Your task to perform on an android device: open chrome and create a bookmark for the current page Image 0: 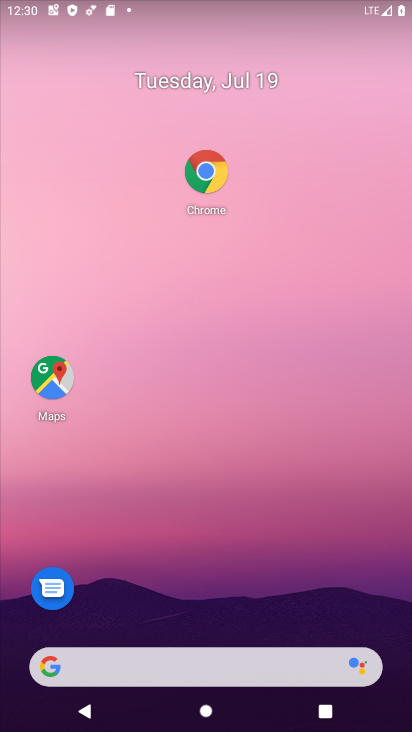
Step 0: click (201, 169)
Your task to perform on an android device: open chrome and create a bookmark for the current page Image 1: 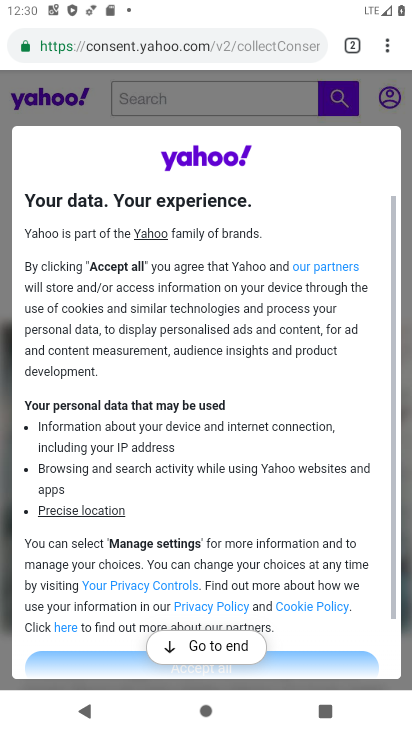
Step 1: click (388, 51)
Your task to perform on an android device: open chrome and create a bookmark for the current page Image 2: 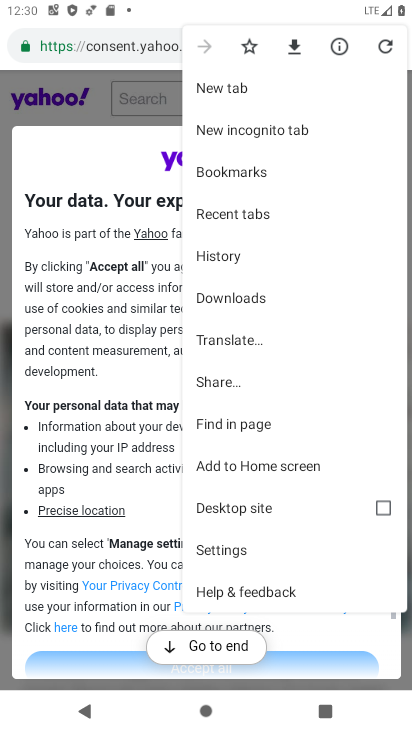
Step 2: click (247, 48)
Your task to perform on an android device: open chrome and create a bookmark for the current page Image 3: 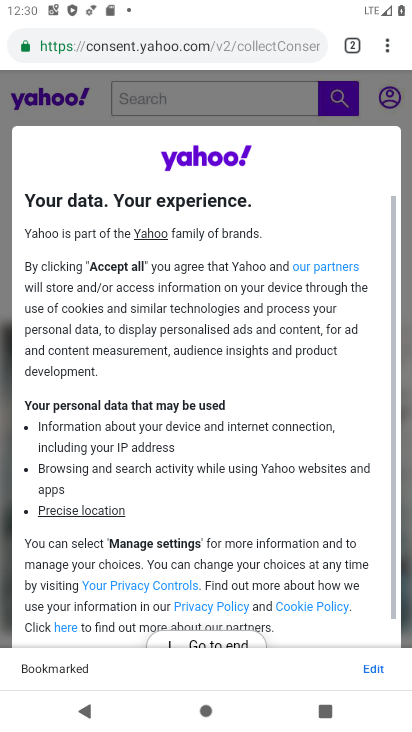
Step 3: task complete